Your task to perform on an android device: Open Youtube and go to "Your channel" Image 0: 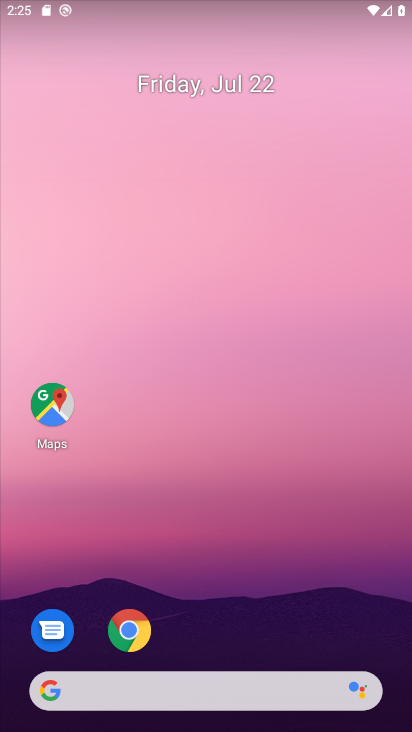
Step 0: drag from (274, 660) to (193, 279)
Your task to perform on an android device: Open Youtube and go to "Your channel" Image 1: 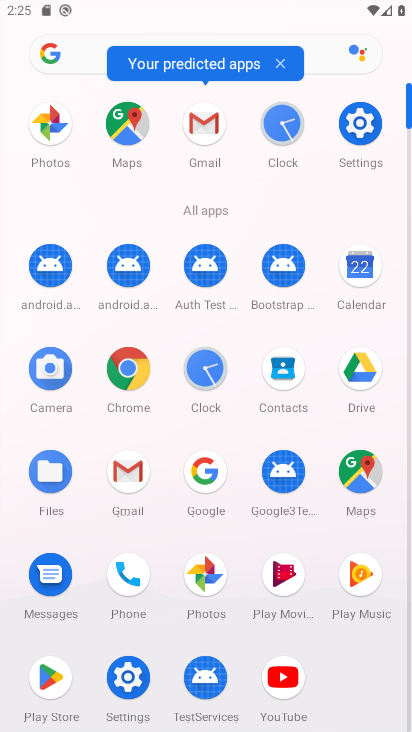
Step 1: click (289, 687)
Your task to perform on an android device: Open Youtube and go to "Your channel" Image 2: 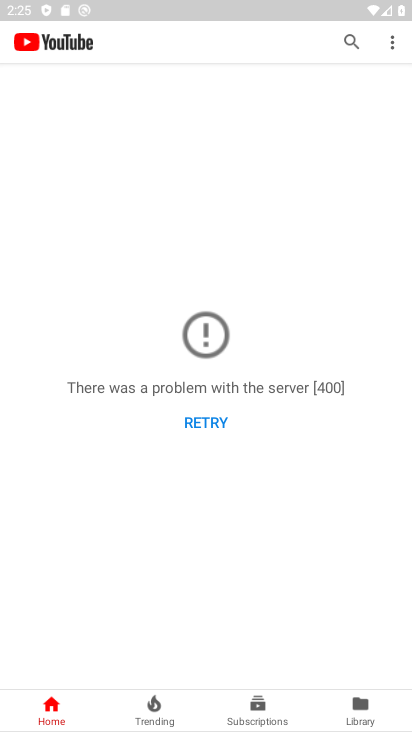
Step 2: click (393, 39)
Your task to perform on an android device: Open Youtube and go to "Your channel" Image 3: 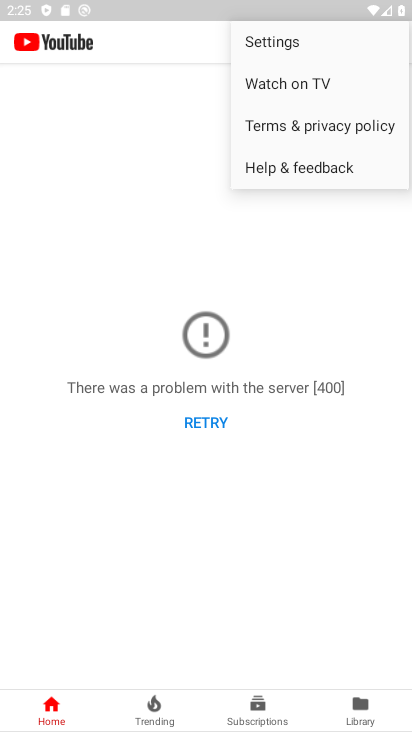
Step 3: task complete